Your task to perform on an android device: turn off notifications in google photos Image 0: 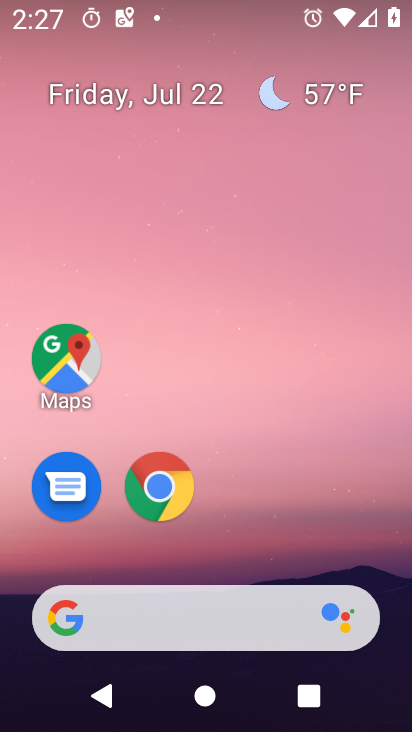
Step 0: press home button
Your task to perform on an android device: turn off notifications in google photos Image 1: 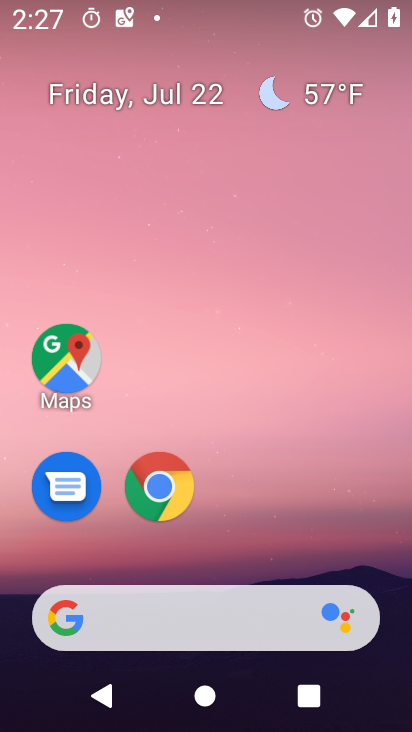
Step 1: drag from (373, 550) to (383, 148)
Your task to perform on an android device: turn off notifications in google photos Image 2: 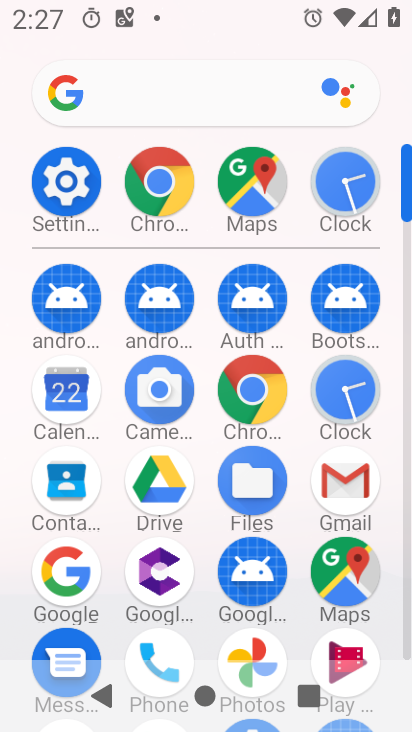
Step 2: drag from (404, 468) to (399, 373)
Your task to perform on an android device: turn off notifications in google photos Image 3: 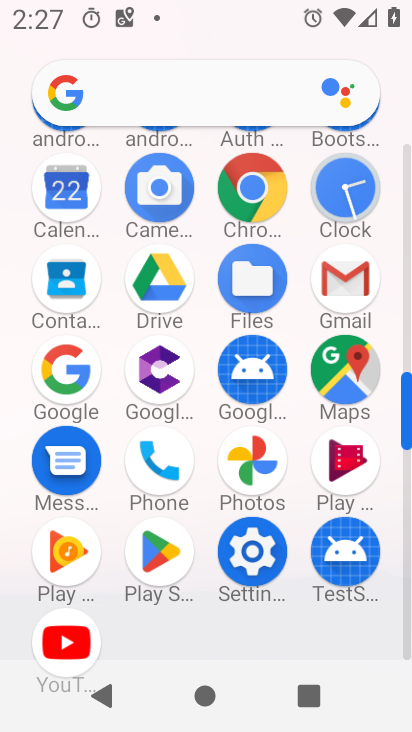
Step 3: click (252, 460)
Your task to perform on an android device: turn off notifications in google photos Image 4: 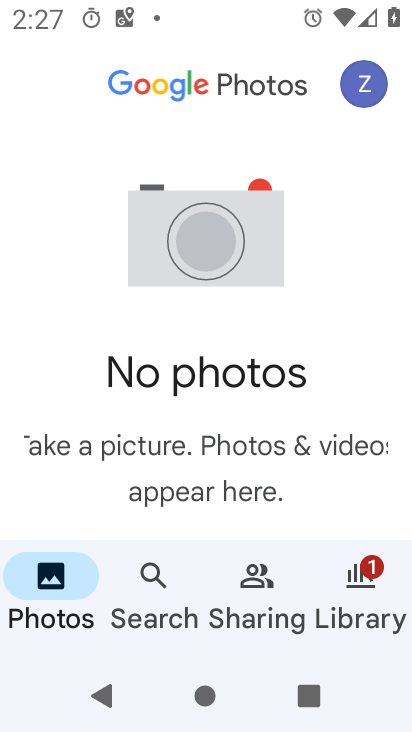
Step 4: click (363, 82)
Your task to perform on an android device: turn off notifications in google photos Image 5: 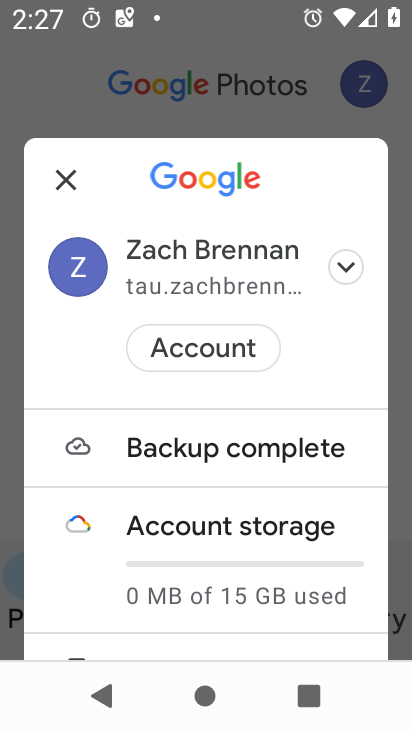
Step 5: drag from (309, 364) to (312, 278)
Your task to perform on an android device: turn off notifications in google photos Image 6: 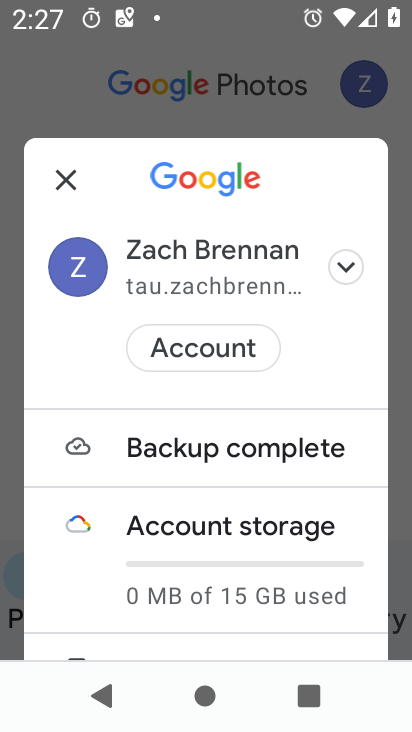
Step 6: drag from (315, 473) to (303, 364)
Your task to perform on an android device: turn off notifications in google photos Image 7: 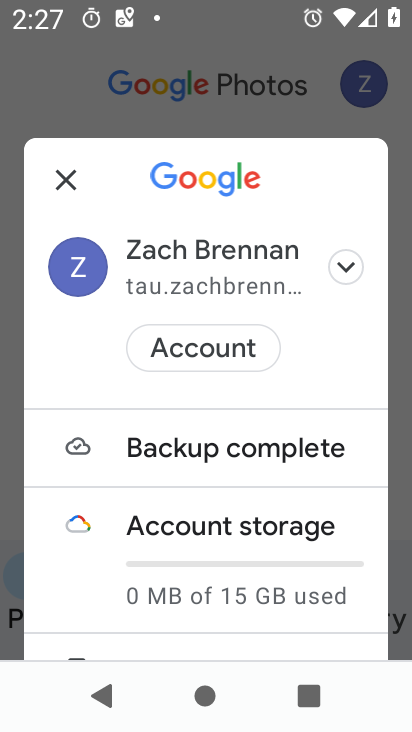
Step 7: drag from (303, 514) to (293, 120)
Your task to perform on an android device: turn off notifications in google photos Image 8: 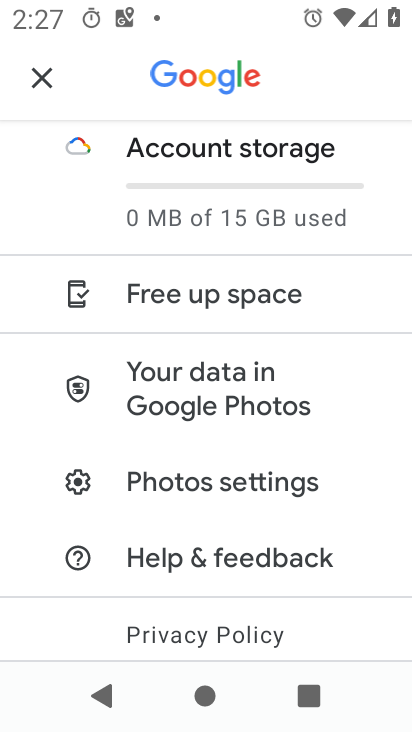
Step 8: click (320, 496)
Your task to perform on an android device: turn off notifications in google photos Image 9: 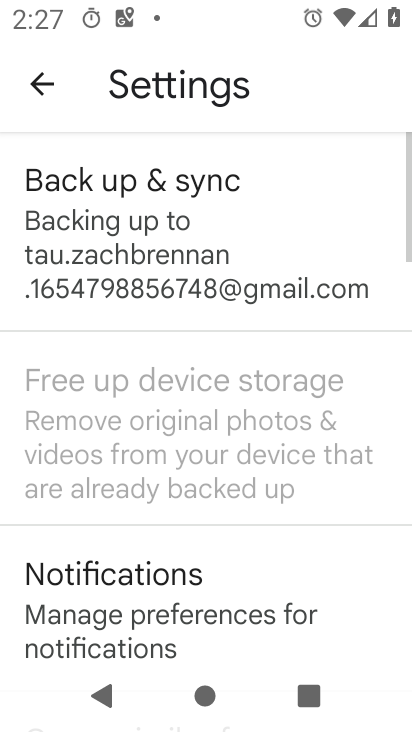
Step 9: drag from (318, 506) to (315, 374)
Your task to perform on an android device: turn off notifications in google photos Image 10: 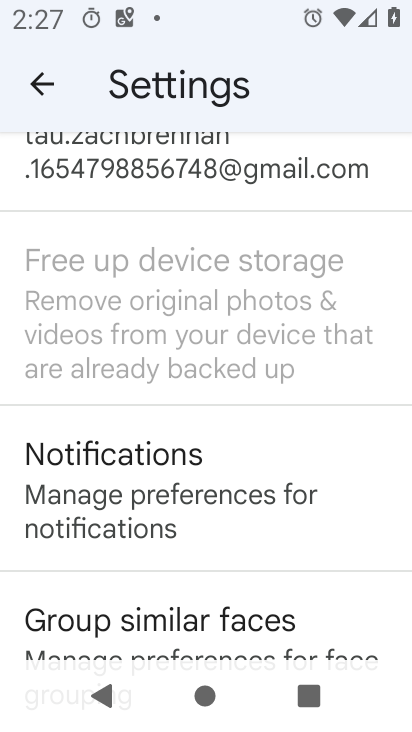
Step 10: click (304, 477)
Your task to perform on an android device: turn off notifications in google photos Image 11: 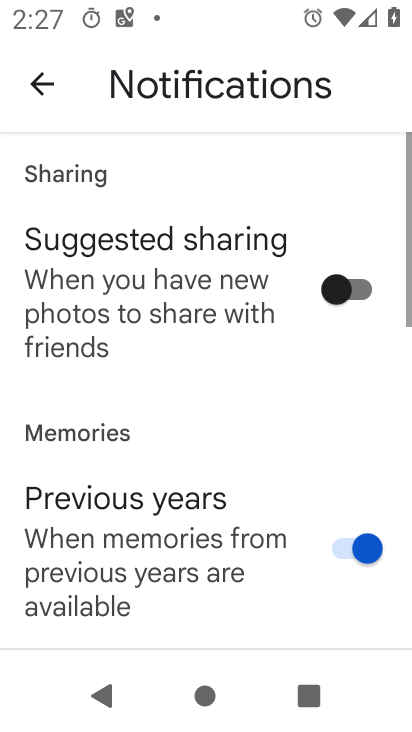
Step 11: drag from (306, 527) to (308, 430)
Your task to perform on an android device: turn off notifications in google photos Image 12: 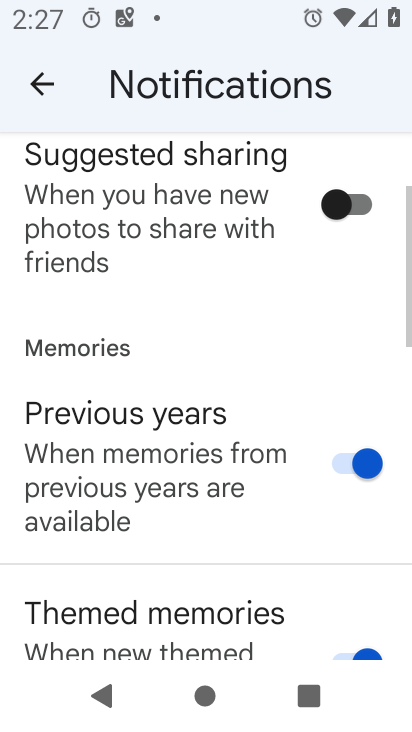
Step 12: drag from (308, 554) to (309, 472)
Your task to perform on an android device: turn off notifications in google photos Image 13: 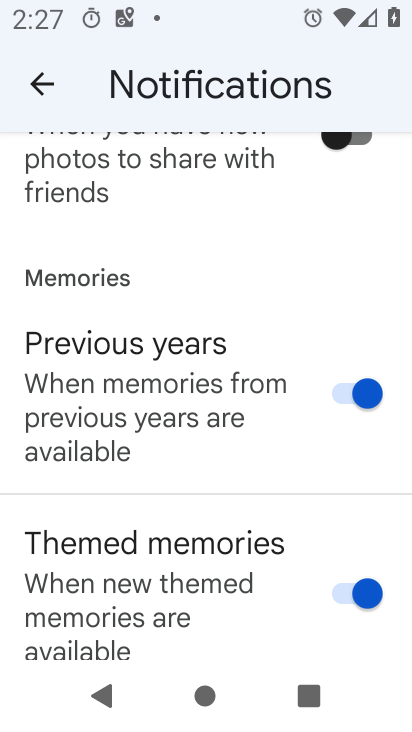
Step 13: drag from (290, 604) to (290, 499)
Your task to perform on an android device: turn off notifications in google photos Image 14: 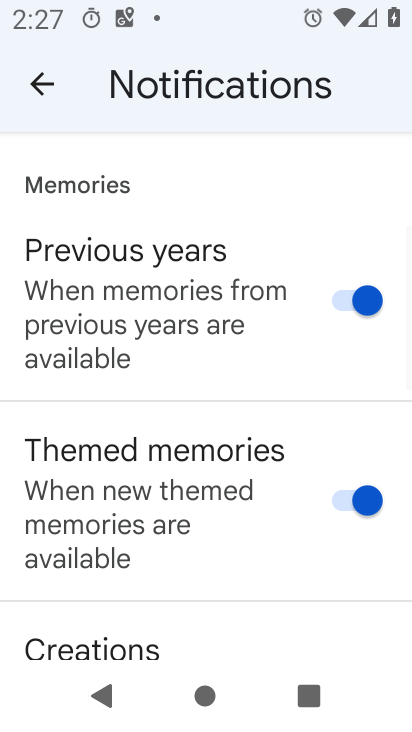
Step 14: drag from (274, 602) to (273, 512)
Your task to perform on an android device: turn off notifications in google photos Image 15: 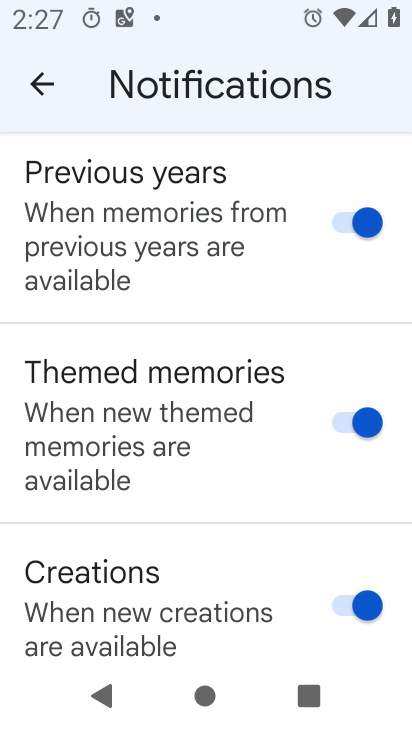
Step 15: drag from (276, 629) to (269, 486)
Your task to perform on an android device: turn off notifications in google photos Image 16: 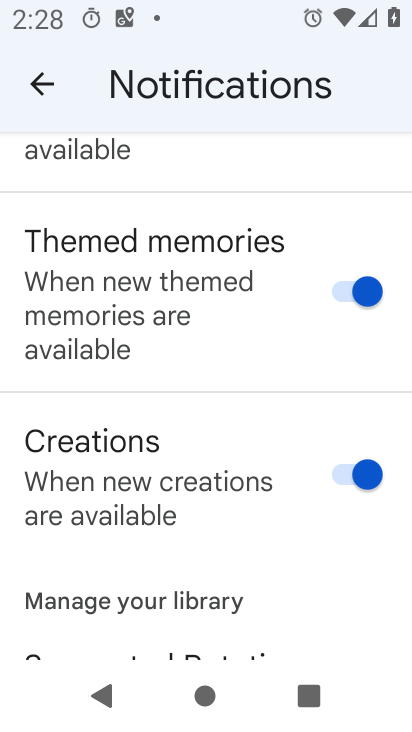
Step 16: drag from (266, 586) to (270, 478)
Your task to perform on an android device: turn off notifications in google photos Image 17: 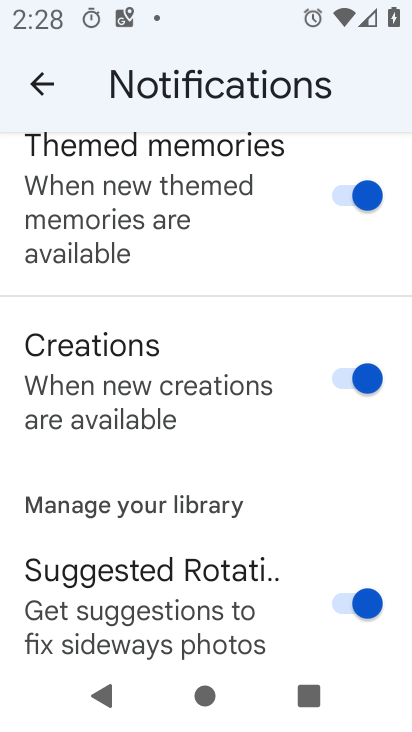
Step 17: drag from (290, 607) to (295, 452)
Your task to perform on an android device: turn off notifications in google photos Image 18: 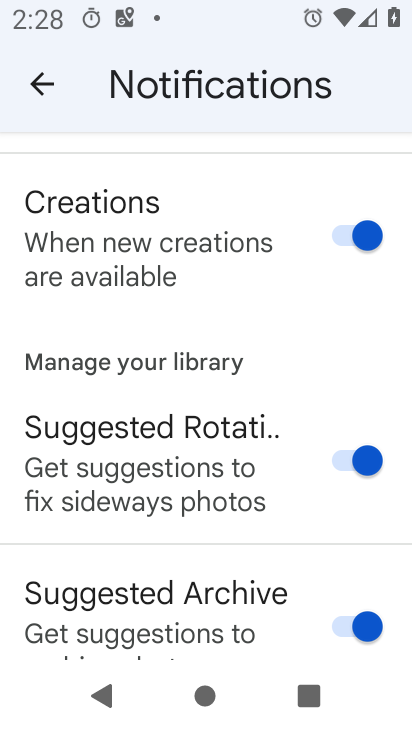
Step 18: drag from (288, 608) to (288, 415)
Your task to perform on an android device: turn off notifications in google photos Image 19: 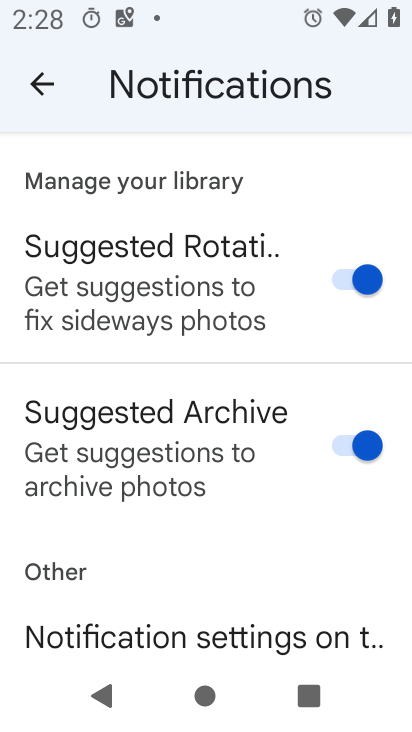
Step 19: drag from (264, 572) to (267, 411)
Your task to perform on an android device: turn off notifications in google photos Image 20: 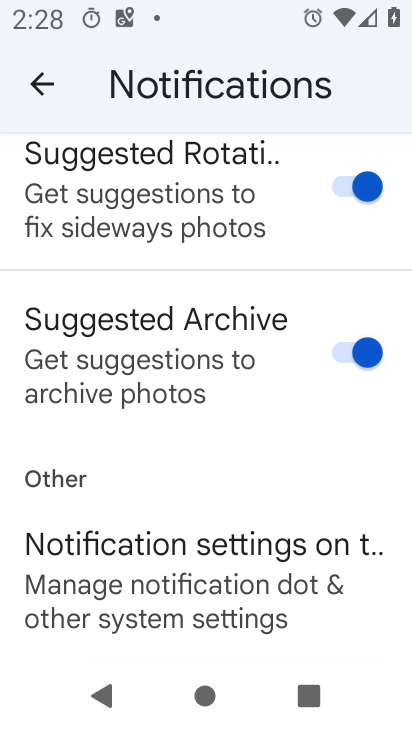
Step 20: click (284, 561)
Your task to perform on an android device: turn off notifications in google photos Image 21: 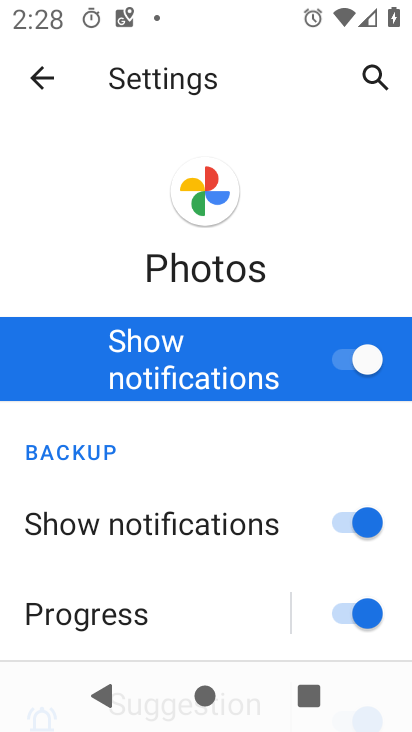
Step 21: click (352, 355)
Your task to perform on an android device: turn off notifications in google photos Image 22: 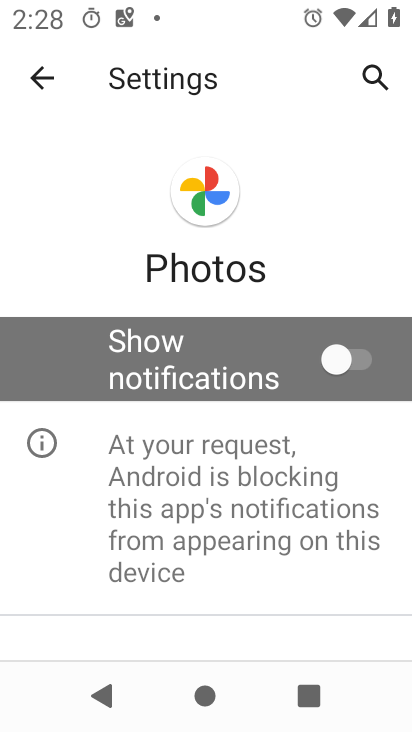
Step 22: task complete